Your task to perform on an android device: Show me popular games on the Play Store Image 0: 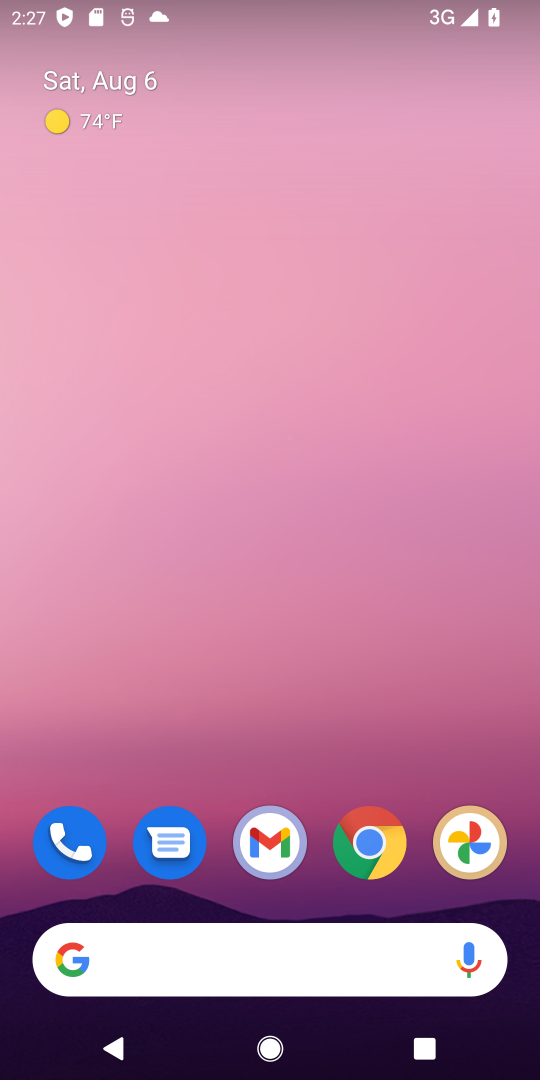
Step 0: drag from (232, 782) to (216, 6)
Your task to perform on an android device: Show me popular games on the Play Store Image 1: 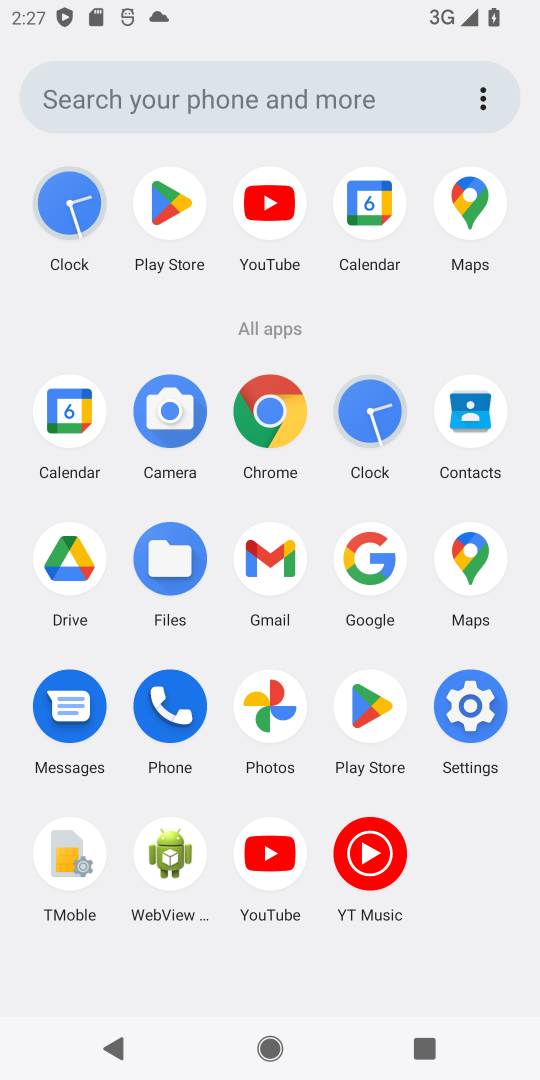
Step 1: click (373, 719)
Your task to perform on an android device: Show me popular games on the Play Store Image 2: 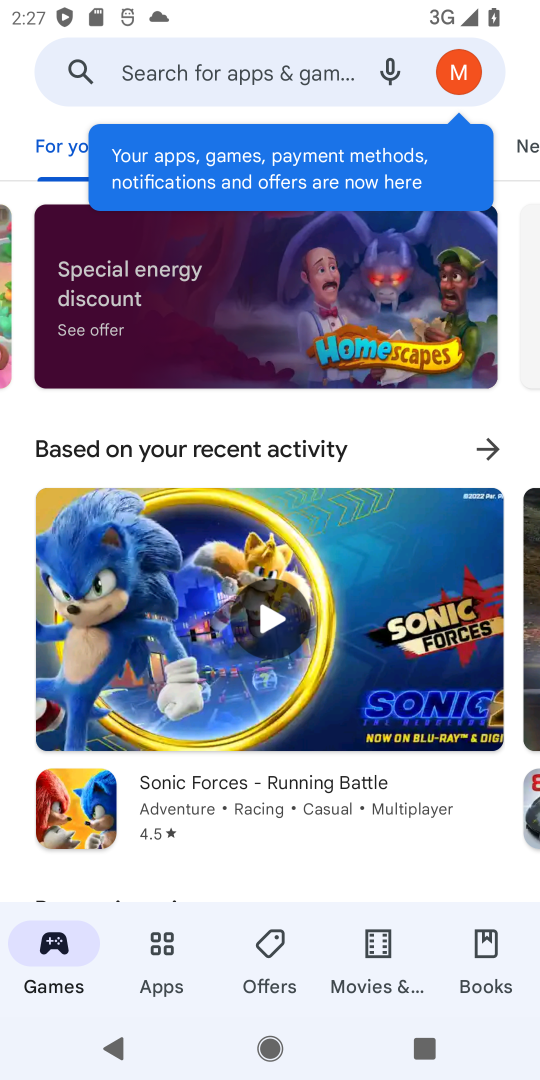
Step 2: click (203, 71)
Your task to perform on an android device: Show me popular games on the Play Store Image 3: 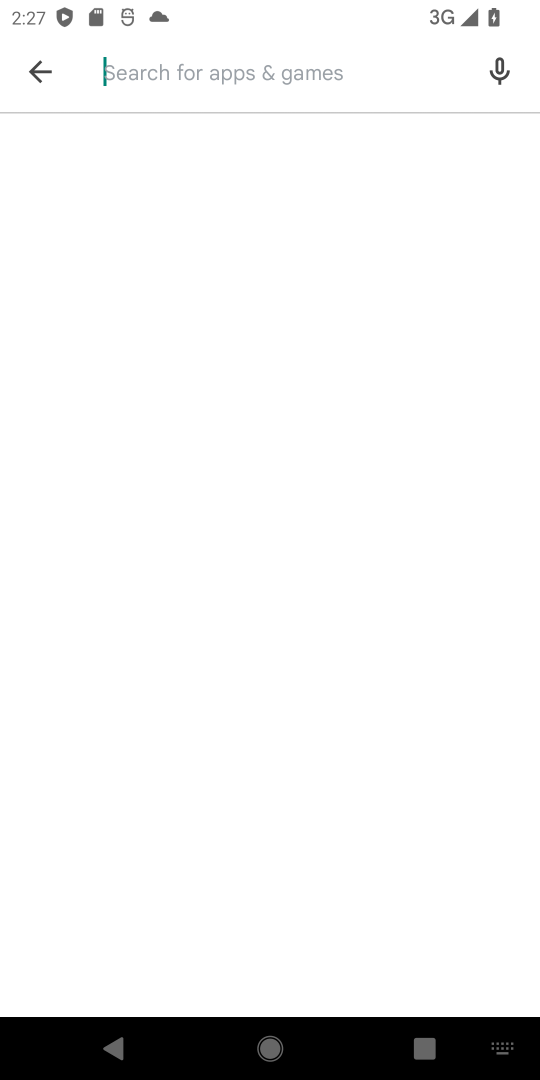
Step 3: type "popular games"
Your task to perform on an android device: Show me popular games on the Play Store Image 4: 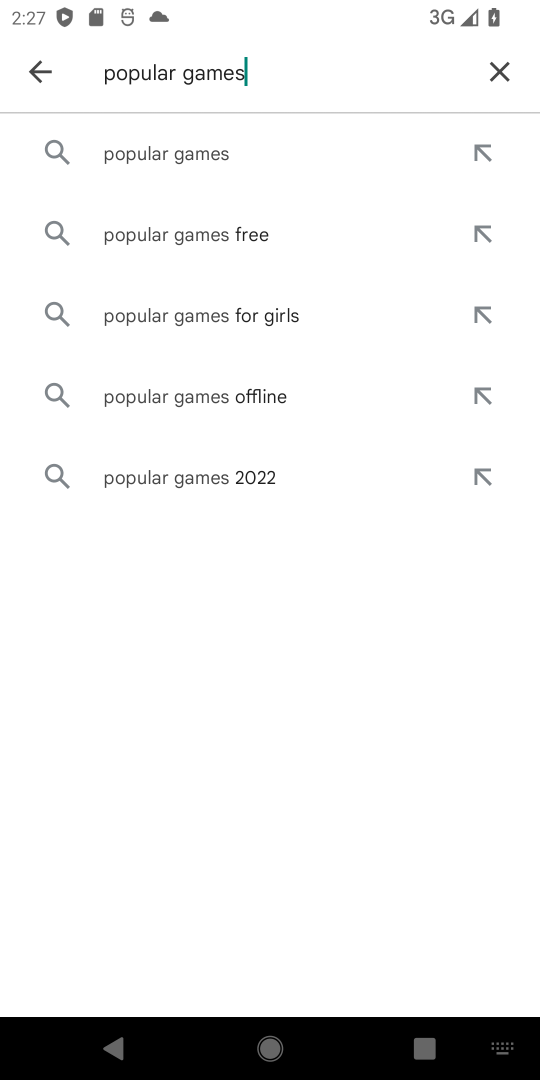
Step 4: click (131, 149)
Your task to perform on an android device: Show me popular games on the Play Store Image 5: 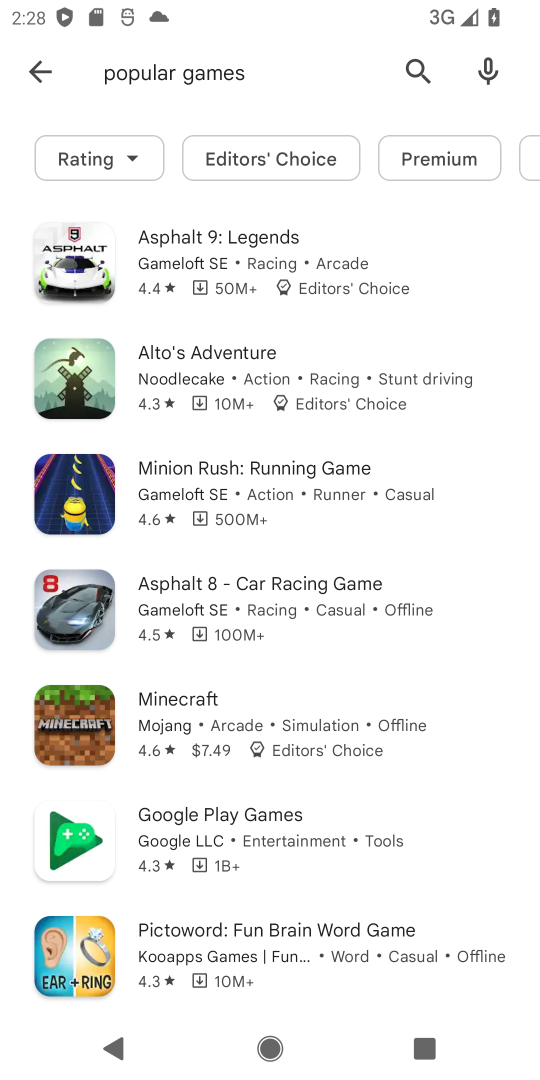
Step 5: task complete